Your task to perform on an android device: Go to Reddit.com Image 0: 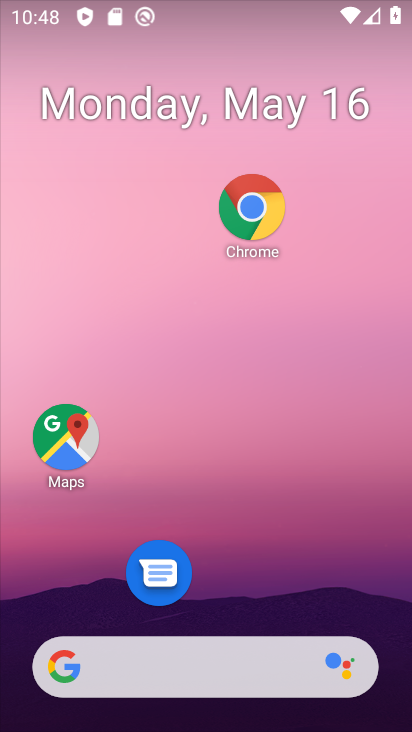
Step 0: drag from (154, 715) to (223, 156)
Your task to perform on an android device: Go to Reddit.com Image 1: 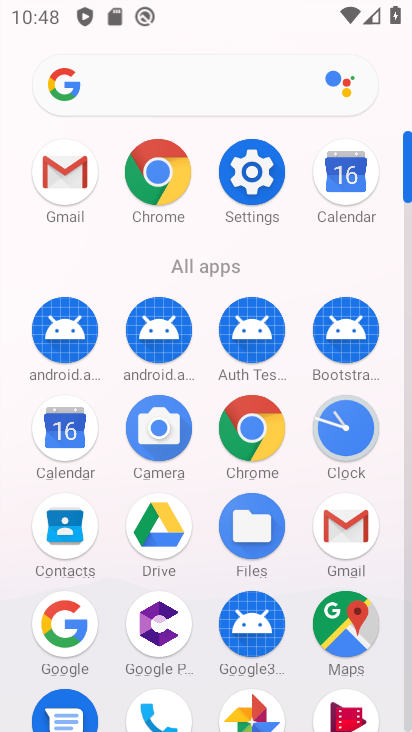
Step 1: click (247, 428)
Your task to perform on an android device: Go to Reddit.com Image 2: 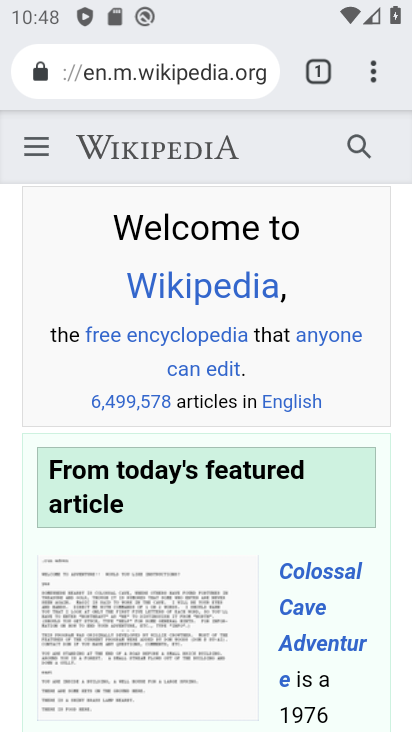
Step 2: click (244, 70)
Your task to perform on an android device: Go to Reddit.com Image 3: 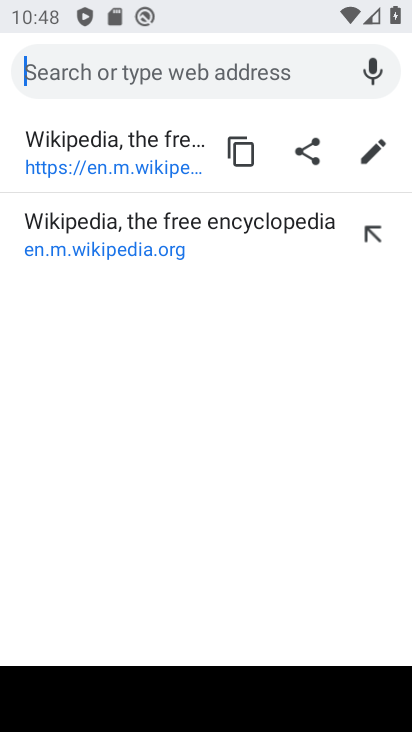
Step 3: type "reddit.com"
Your task to perform on an android device: Go to Reddit.com Image 4: 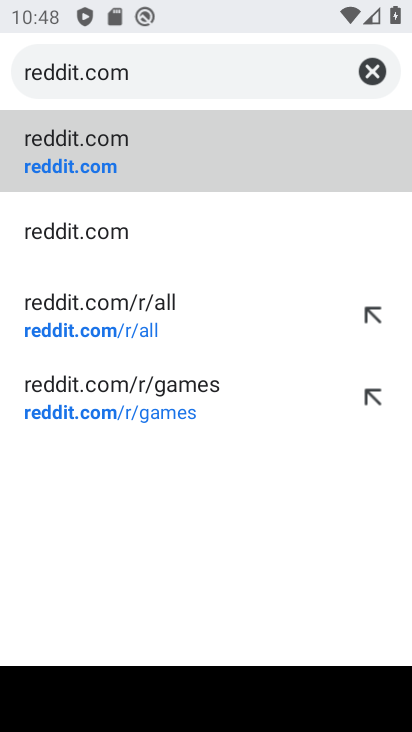
Step 4: click (173, 162)
Your task to perform on an android device: Go to Reddit.com Image 5: 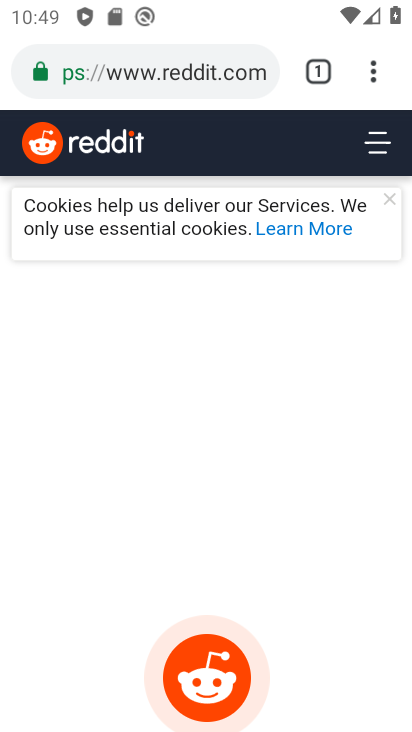
Step 5: task complete